Your task to perform on an android device: Open calendar and show me the second week of next month Image 0: 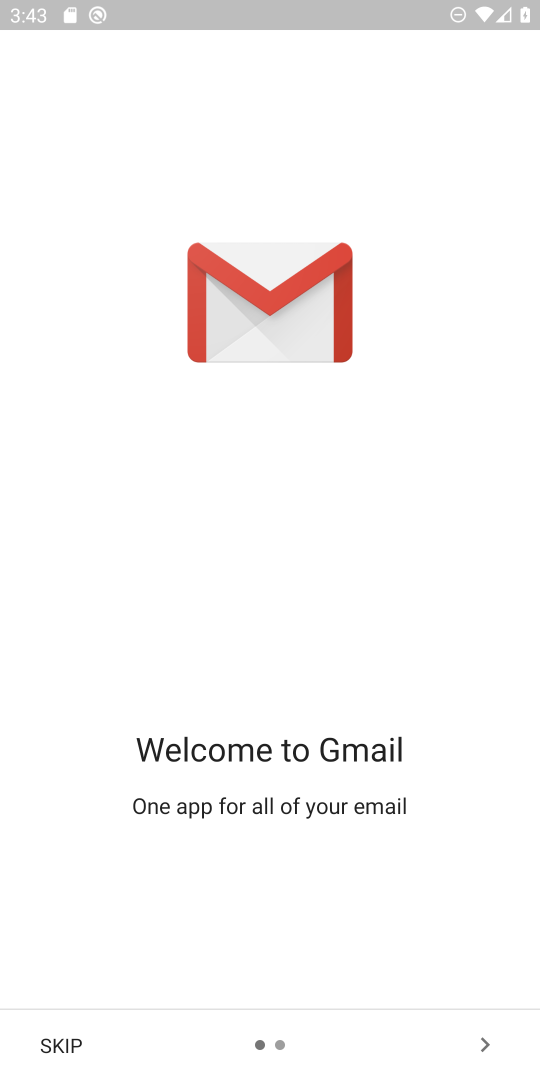
Step 0: press home button
Your task to perform on an android device: Open calendar and show me the second week of next month Image 1: 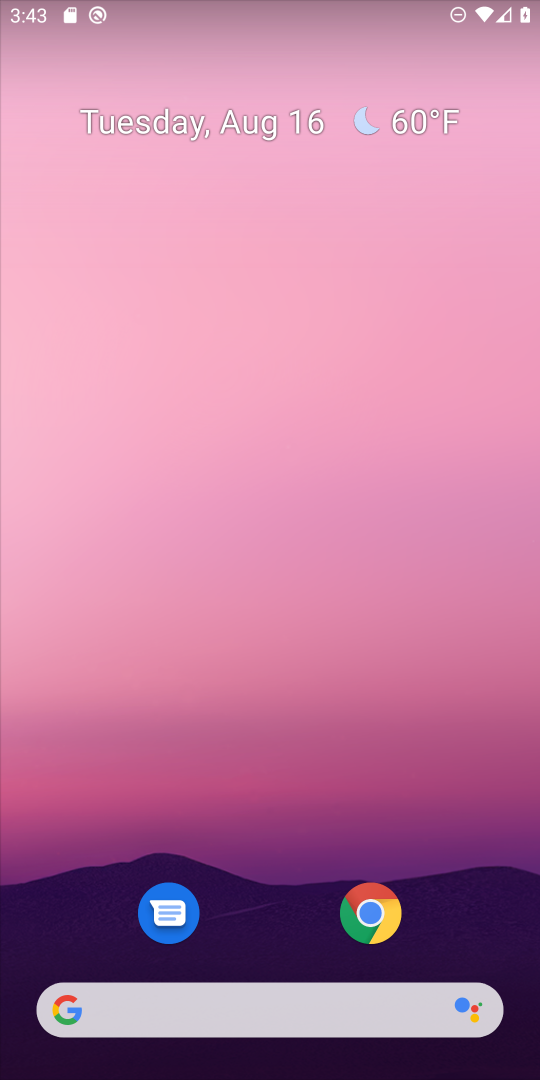
Step 1: drag from (475, 369) to (453, 175)
Your task to perform on an android device: Open calendar and show me the second week of next month Image 2: 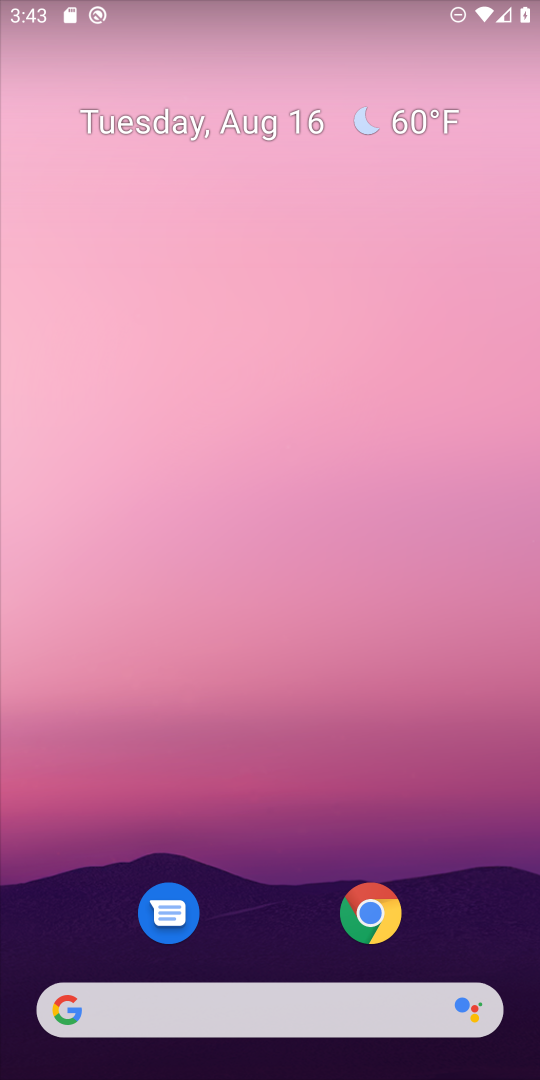
Step 2: drag from (506, 939) to (433, 128)
Your task to perform on an android device: Open calendar and show me the second week of next month Image 3: 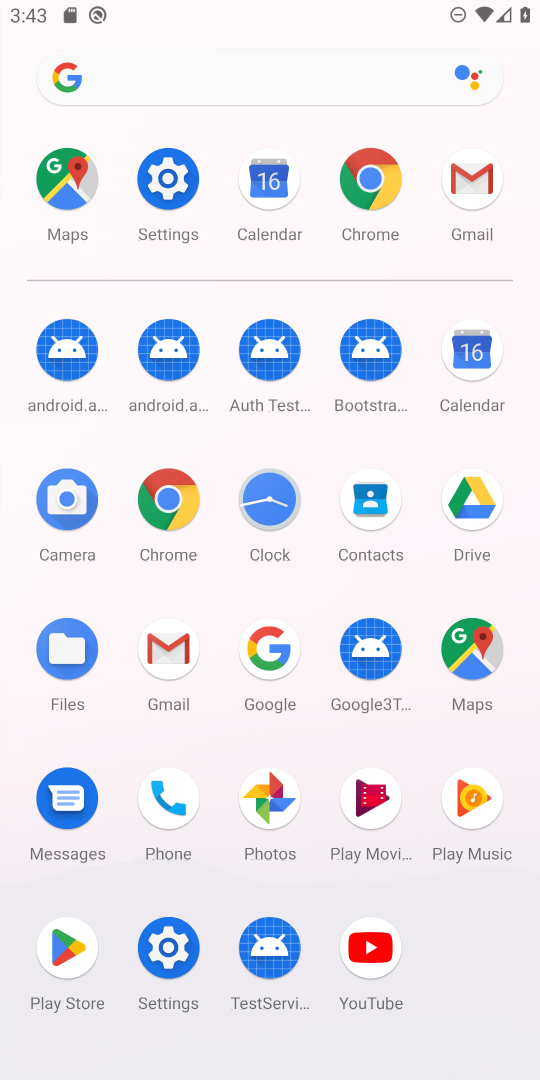
Step 3: click (475, 361)
Your task to perform on an android device: Open calendar and show me the second week of next month Image 4: 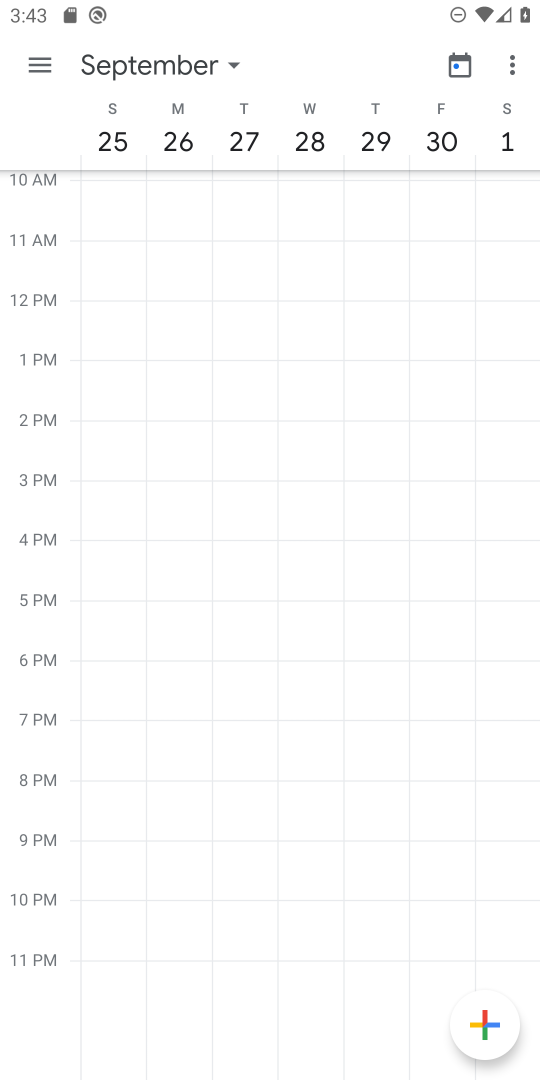
Step 4: click (231, 64)
Your task to perform on an android device: Open calendar and show me the second week of next month Image 5: 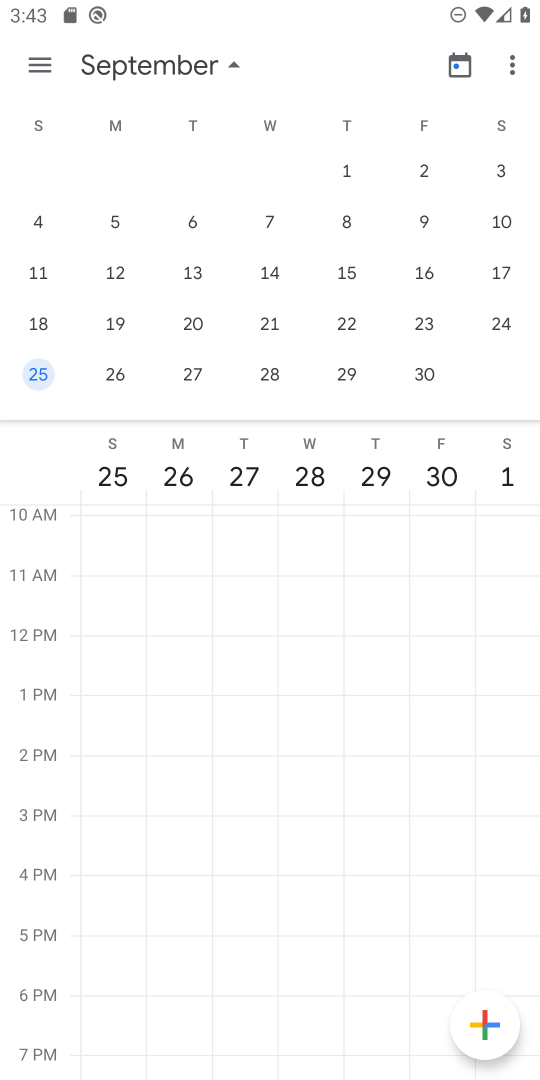
Step 5: click (36, 268)
Your task to perform on an android device: Open calendar and show me the second week of next month Image 6: 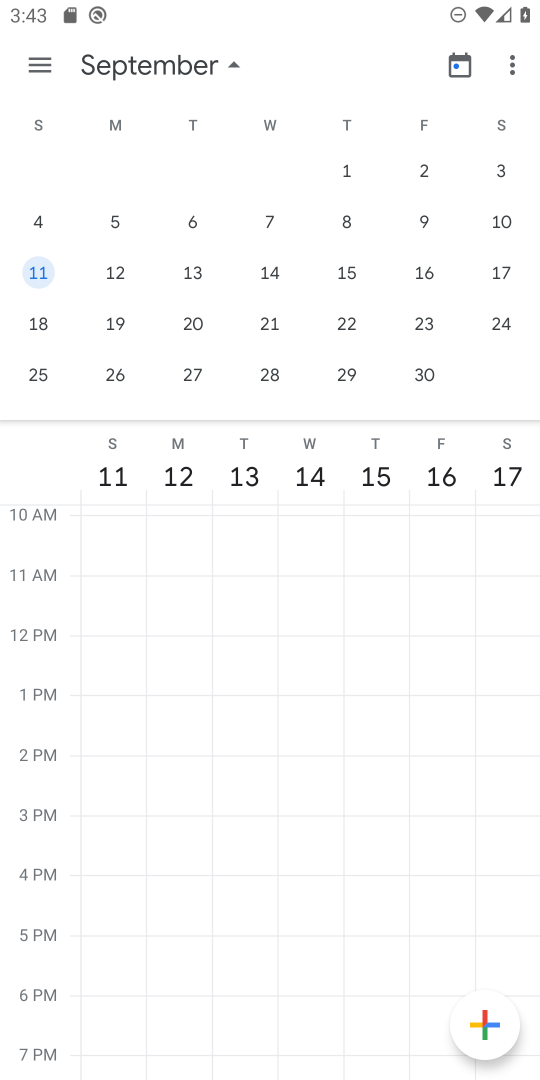
Step 6: task complete